Your task to perform on an android device: toggle translation in the chrome app Image 0: 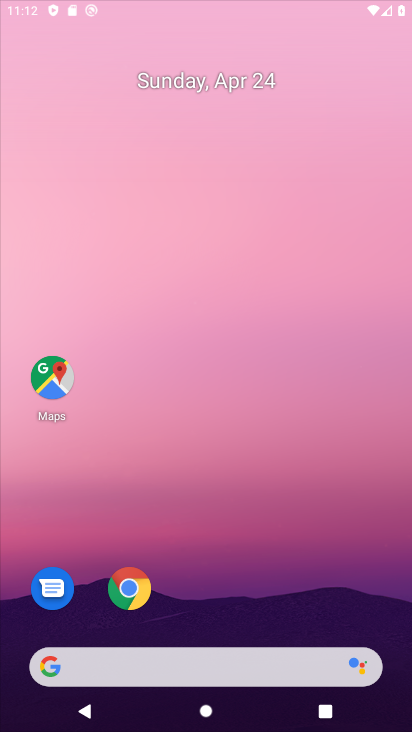
Step 0: click (226, 102)
Your task to perform on an android device: toggle translation in the chrome app Image 1: 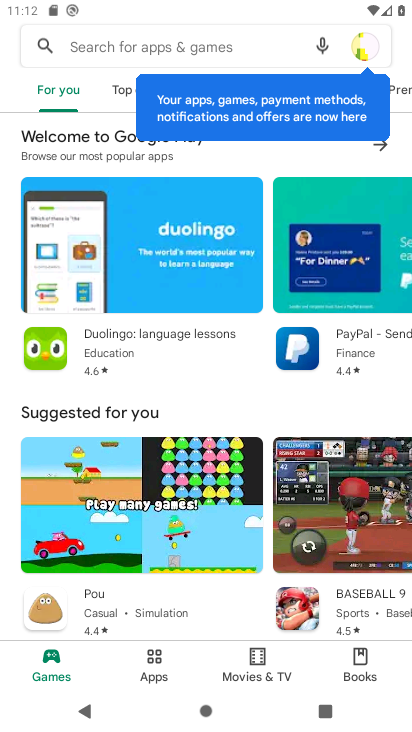
Step 1: press home button
Your task to perform on an android device: toggle translation in the chrome app Image 2: 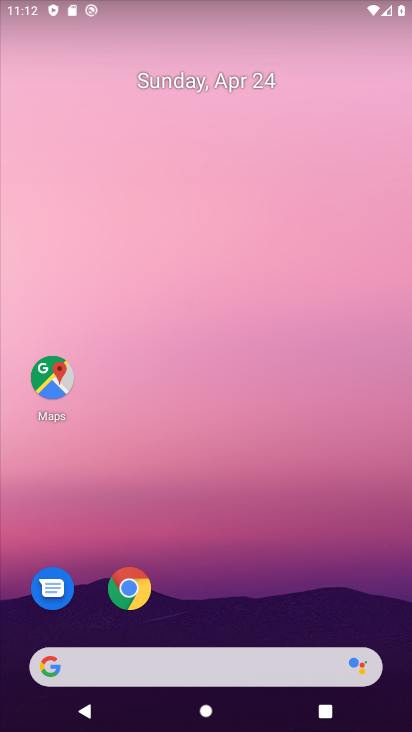
Step 2: click (139, 590)
Your task to perform on an android device: toggle translation in the chrome app Image 3: 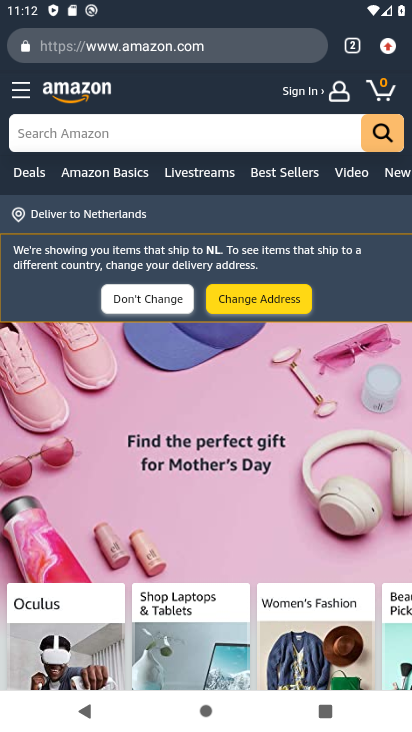
Step 3: click (394, 46)
Your task to perform on an android device: toggle translation in the chrome app Image 4: 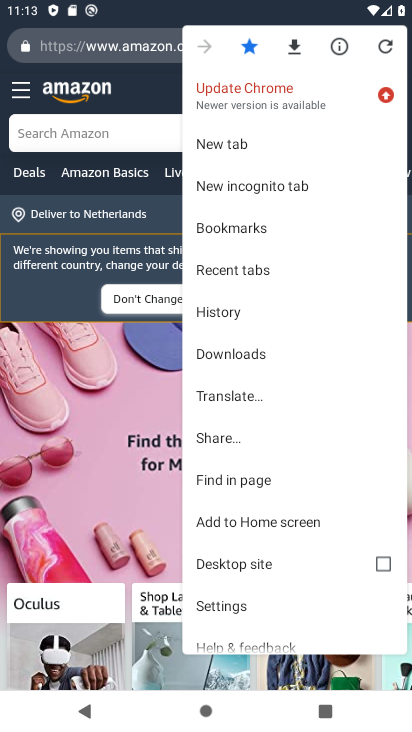
Step 4: click (253, 600)
Your task to perform on an android device: toggle translation in the chrome app Image 5: 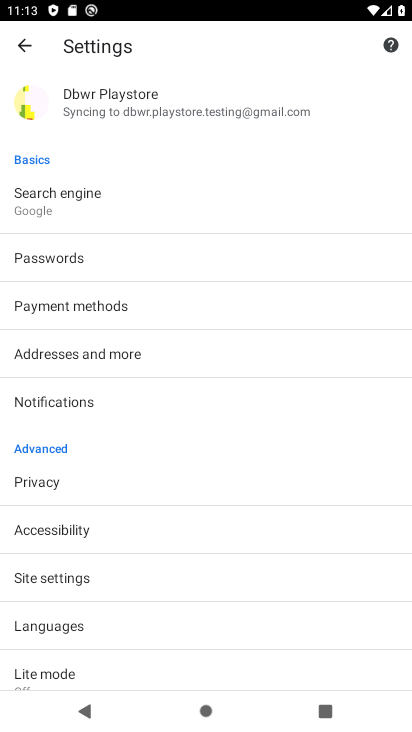
Step 5: click (104, 624)
Your task to perform on an android device: toggle translation in the chrome app Image 6: 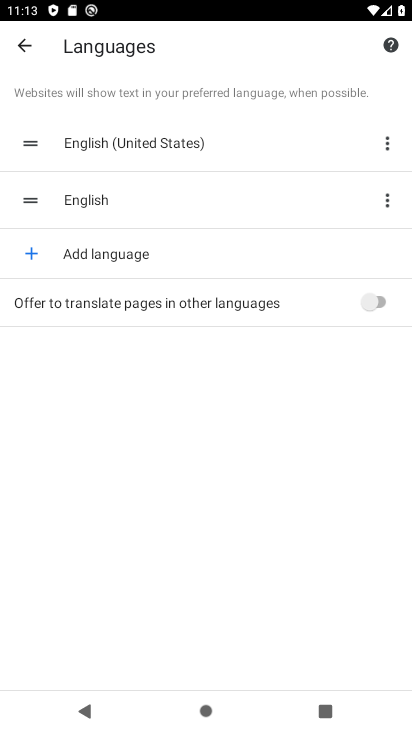
Step 6: click (384, 298)
Your task to perform on an android device: toggle translation in the chrome app Image 7: 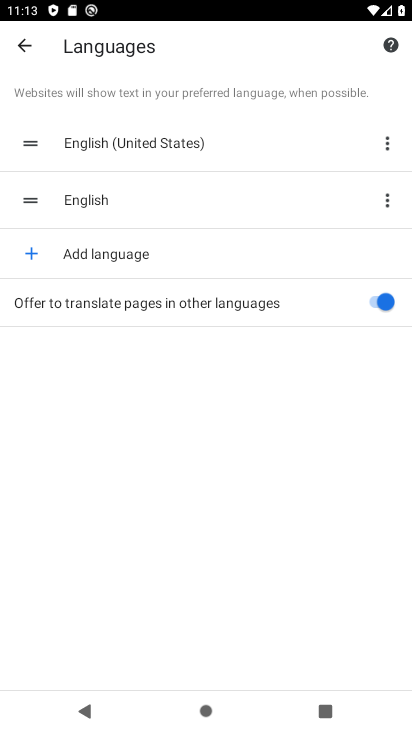
Step 7: task complete